Your task to perform on an android device: turn off wifi Image 0: 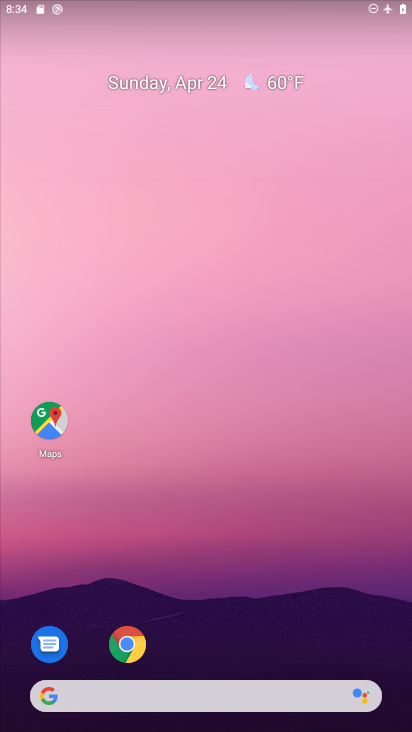
Step 0: click (130, 648)
Your task to perform on an android device: turn off wifi Image 1: 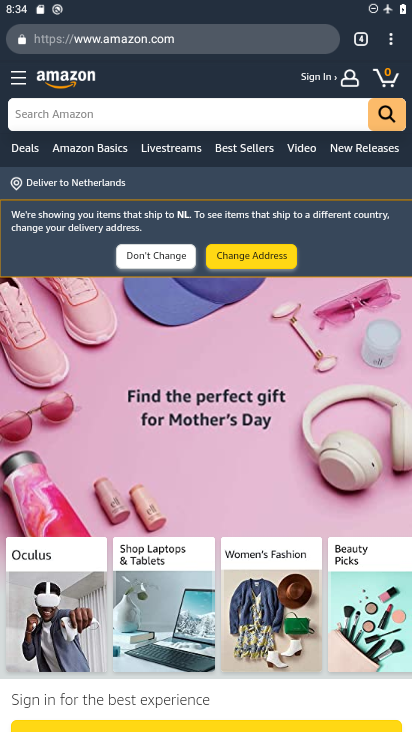
Step 1: press back button
Your task to perform on an android device: turn off wifi Image 2: 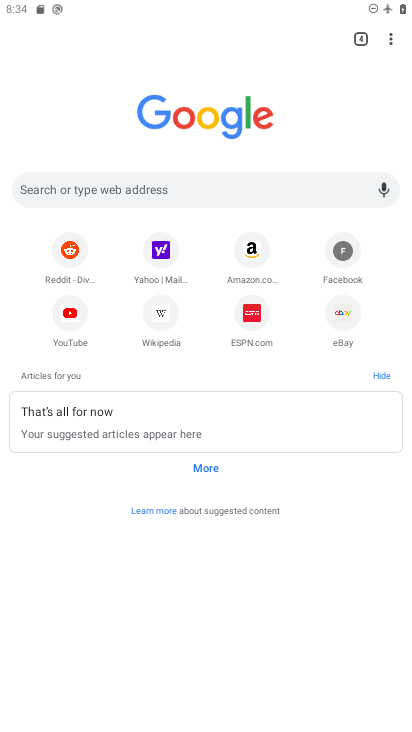
Step 2: press back button
Your task to perform on an android device: turn off wifi Image 3: 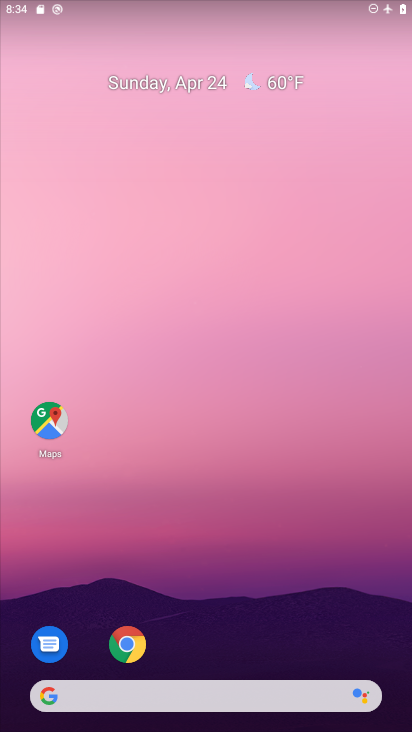
Step 3: click (131, 646)
Your task to perform on an android device: turn off wifi Image 4: 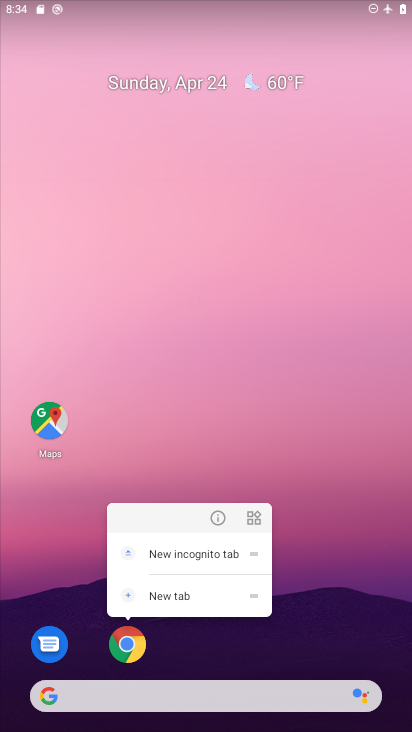
Step 4: click (214, 516)
Your task to perform on an android device: turn off wifi Image 5: 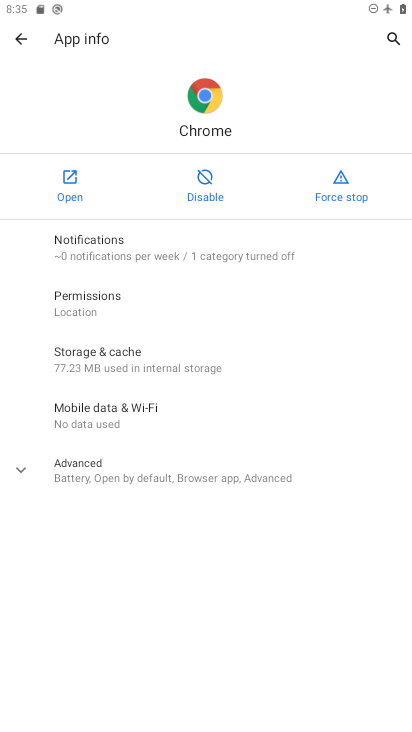
Step 5: press home button
Your task to perform on an android device: turn off wifi Image 6: 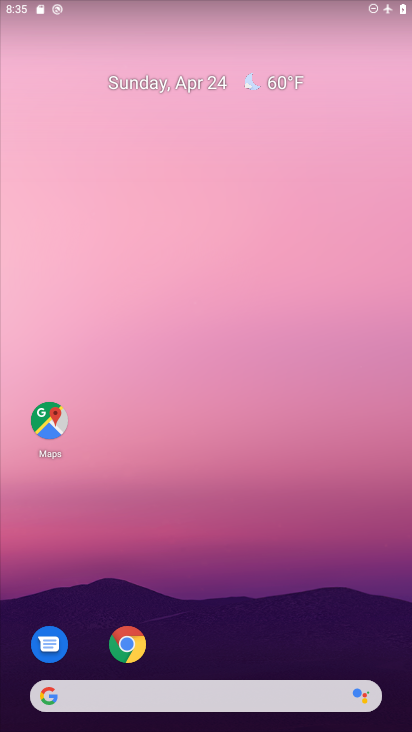
Step 6: drag from (214, 650) to (231, 57)
Your task to perform on an android device: turn off wifi Image 7: 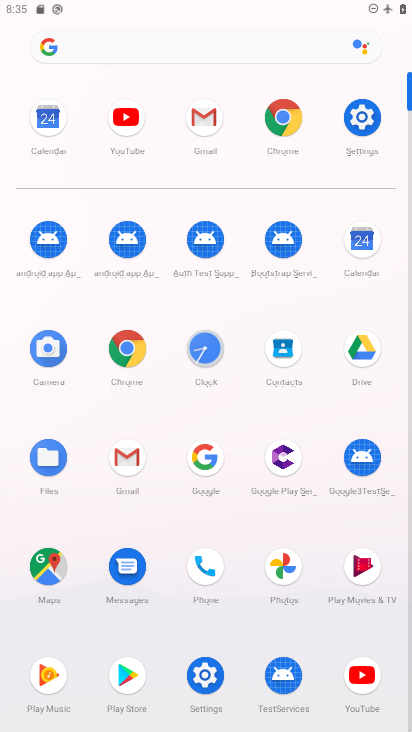
Step 7: drag from (198, 2) to (203, 452)
Your task to perform on an android device: turn off wifi Image 8: 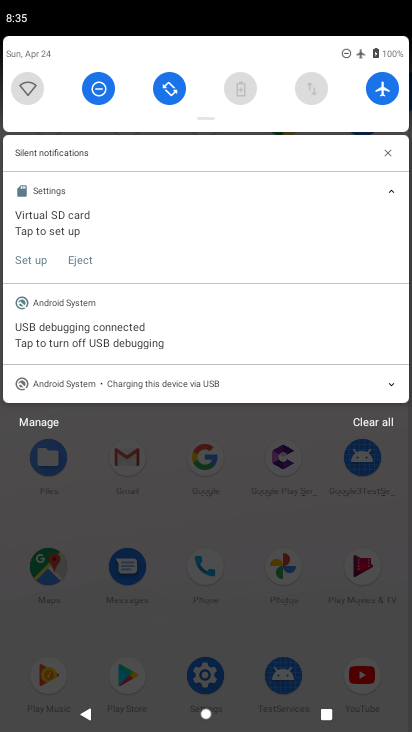
Step 8: click (27, 88)
Your task to perform on an android device: turn off wifi Image 9: 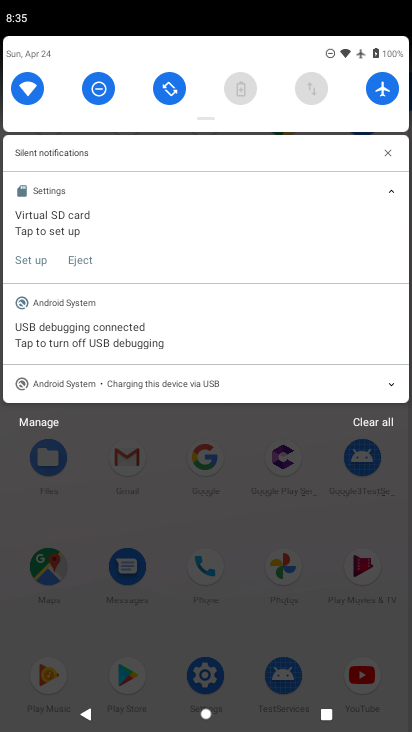
Step 9: task complete